Your task to perform on an android device: uninstall "Lyft - Rideshare, Bikes, Scooters & Transit" Image 0: 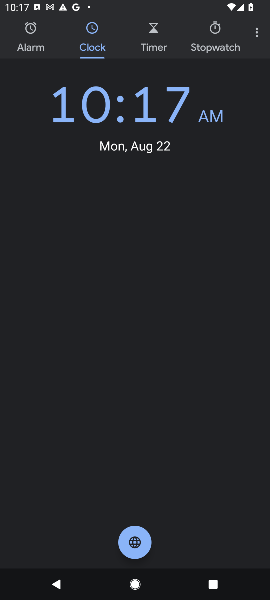
Step 0: press home button
Your task to perform on an android device: uninstall "Lyft - Rideshare, Bikes, Scooters & Transit" Image 1: 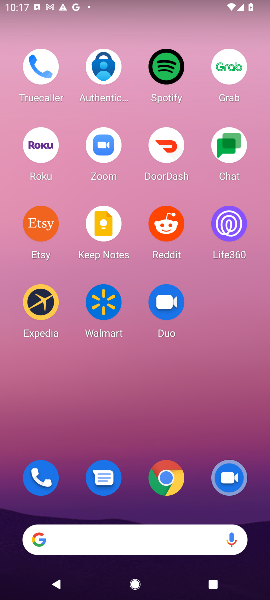
Step 1: drag from (134, 496) to (134, 123)
Your task to perform on an android device: uninstall "Lyft - Rideshare, Bikes, Scooters & Transit" Image 2: 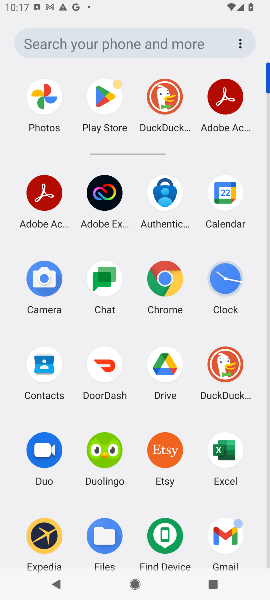
Step 2: click (92, 99)
Your task to perform on an android device: uninstall "Lyft - Rideshare, Bikes, Scooters & Transit" Image 3: 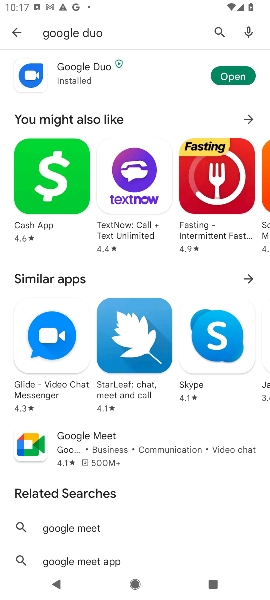
Step 3: click (222, 34)
Your task to perform on an android device: uninstall "Lyft - Rideshare, Bikes, Scooters & Transit" Image 4: 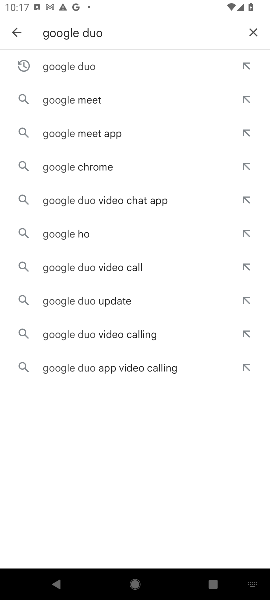
Step 4: click (251, 34)
Your task to perform on an android device: uninstall "Lyft - Rideshare, Bikes, Scooters & Transit" Image 5: 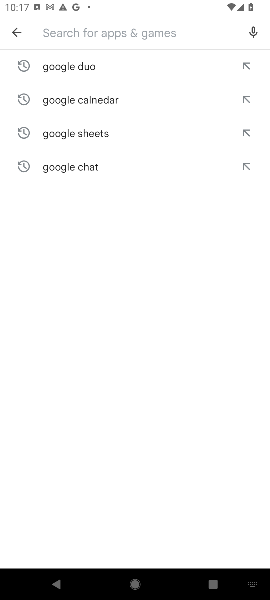
Step 5: type "lyst"
Your task to perform on an android device: uninstall "Lyft - Rideshare, Bikes, Scooters & Transit" Image 6: 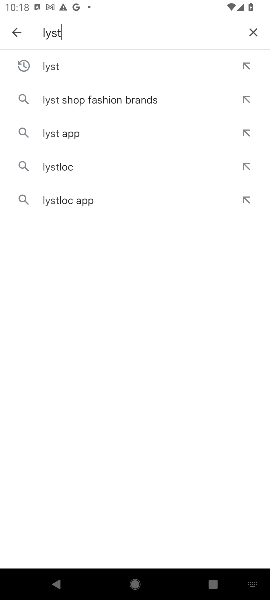
Step 6: click (143, 76)
Your task to perform on an android device: uninstall "Lyft - Rideshare, Bikes, Scooters & Transit" Image 7: 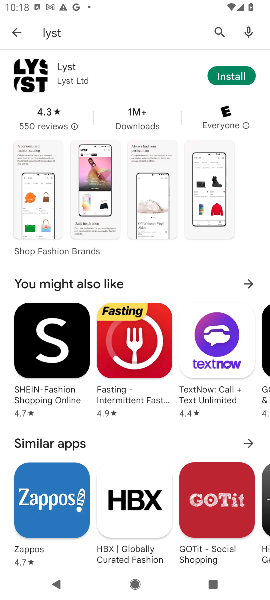
Step 7: click (218, 75)
Your task to perform on an android device: uninstall "Lyft - Rideshare, Bikes, Scooters & Transit" Image 8: 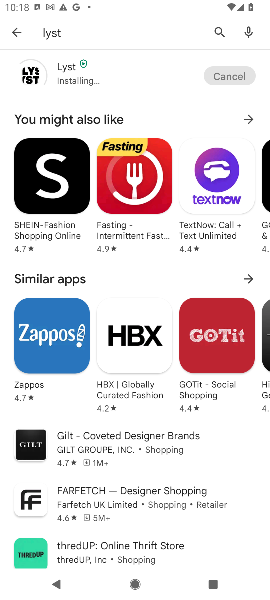
Step 8: task complete